Your task to perform on an android device: turn notification dots off Image 0: 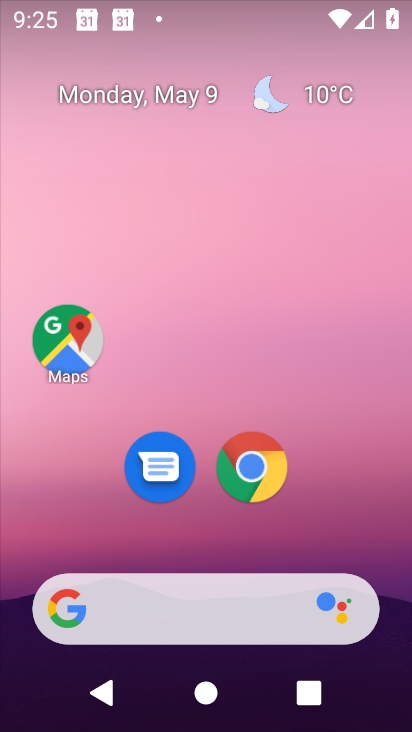
Step 0: drag from (333, 550) to (342, 7)
Your task to perform on an android device: turn notification dots off Image 1: 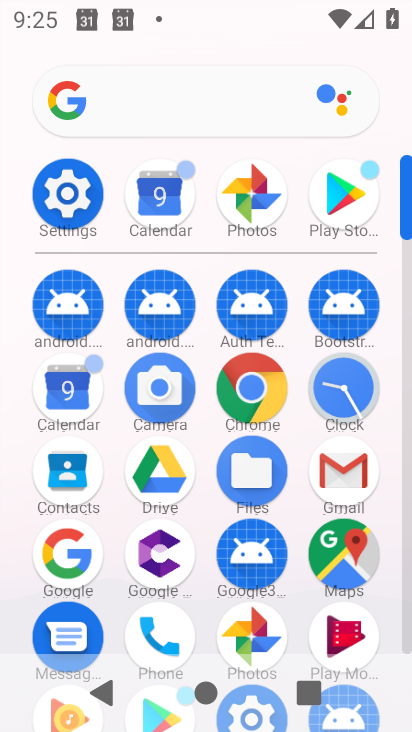
Step 1: click (72, 222)
Your task to perform on an android device: turn notification dots off Image 2: 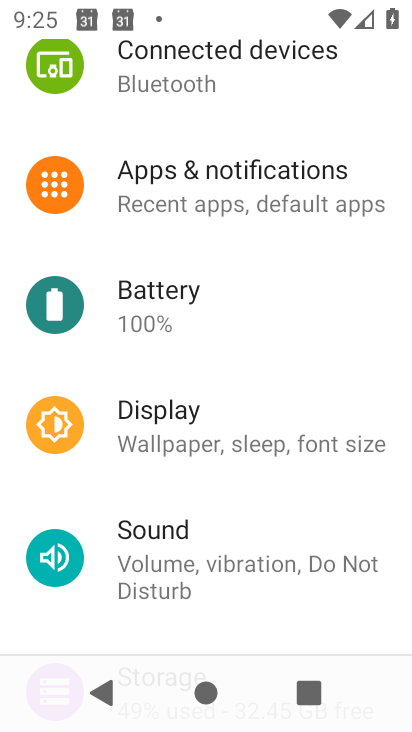
Step 2: click (201, 188)
Your task to perform on an android device: turn notification dots off Image 3: 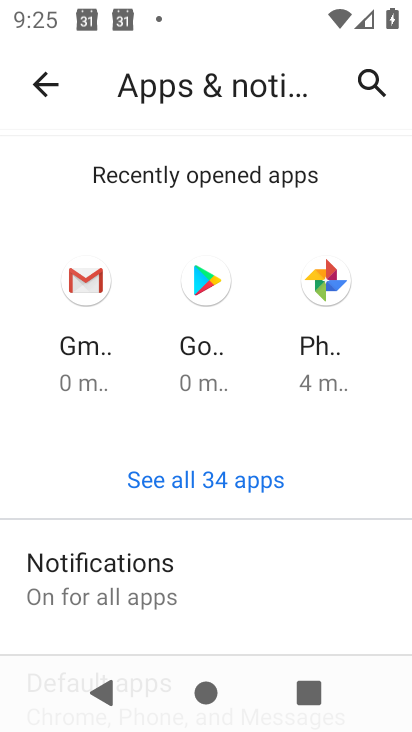
Step 3: click (132, 584)
Your task to perform on an android device: turn notification dots off Image 4: 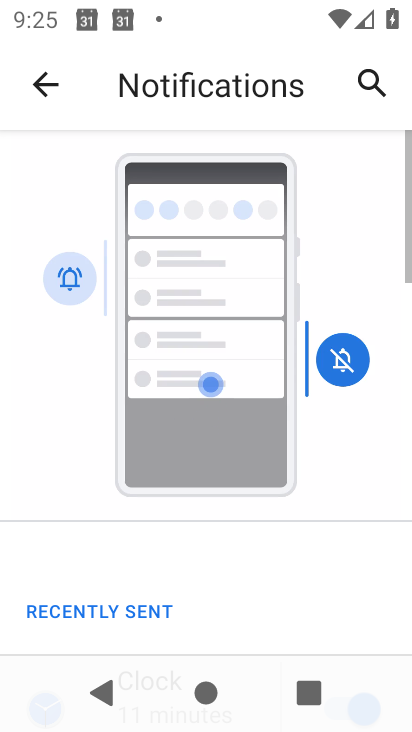
Step 4: drag from (200, 606) to (209, 84)
Your task to perform on an android device: turn notification dots off Image 5: 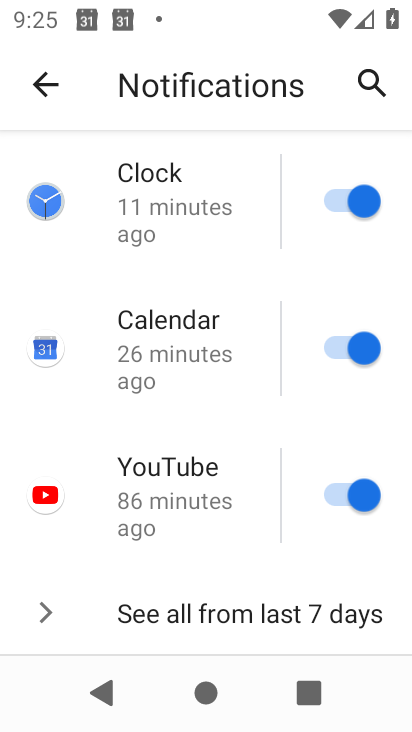
Step 5: drag from (189, 563) to (174, 30)
Your task to perform on an android device: turn notification dots off Image 6: 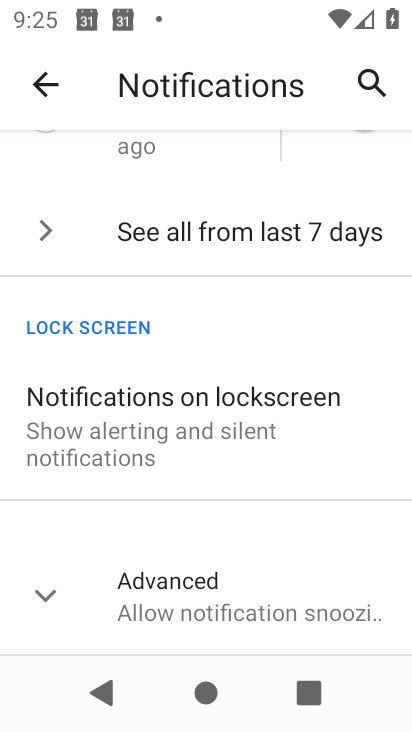
Step 6: click (41, 602)
Your task to perform on an android device: turn notification dots off Image 7: 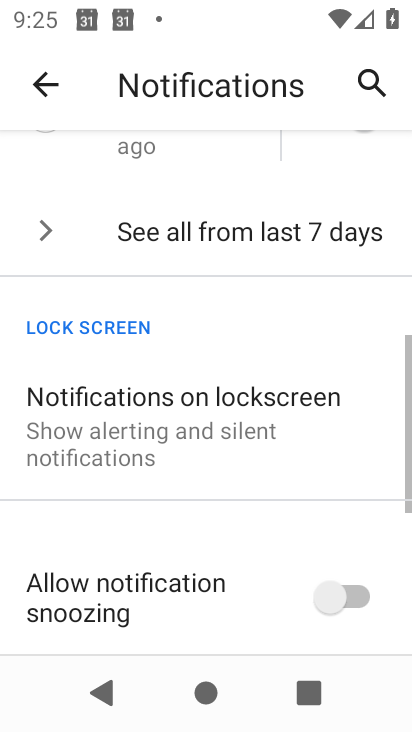
Step 7: drag from (111, 589) to (125, 51)
Your task to perform on an android device: turn notification dots off Image 8: 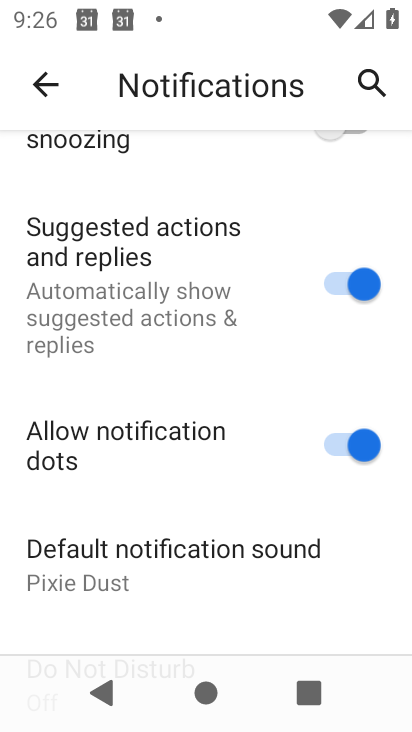
Step 8: click (367, 444)
Your task to perform on an android device: turn notification dots off Image 9: 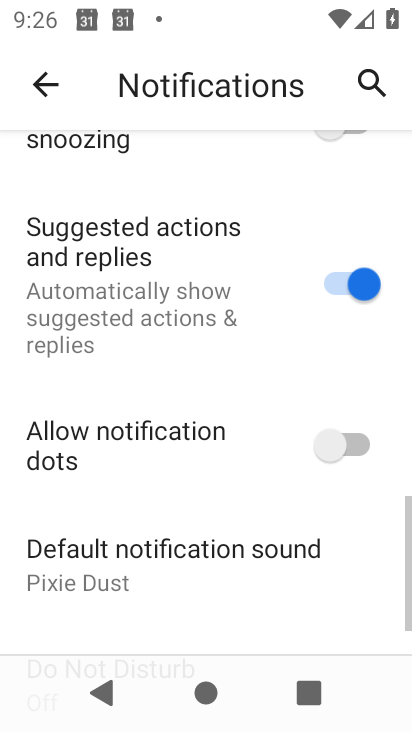
Step 9: task complete